Your task to perform on an android device: Open Maps and search for coffee Image 0: 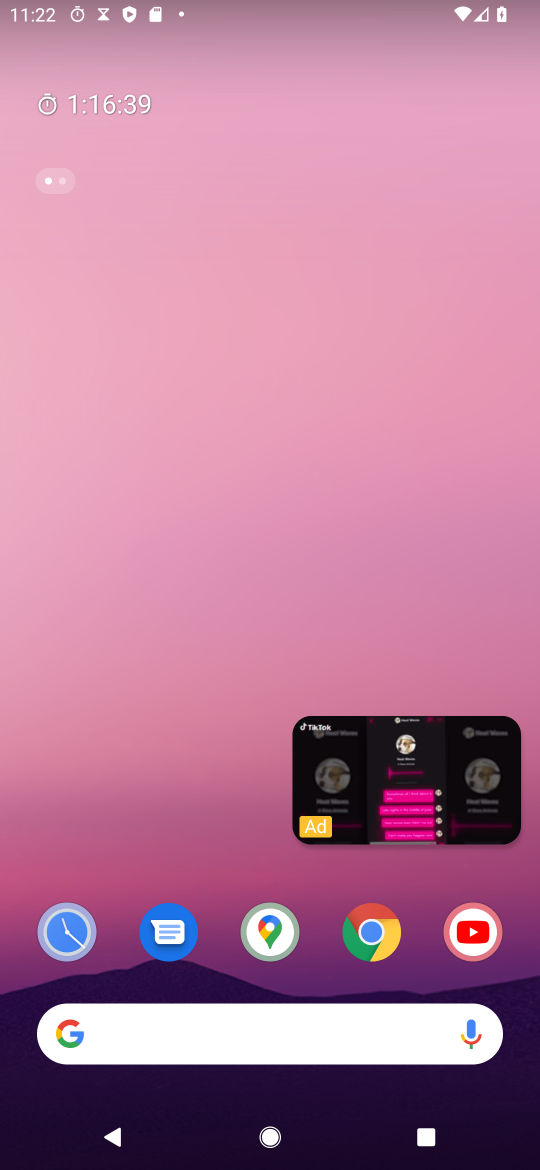
Step 0: click (489, 764)
Your task to perform on an android device: Open Maps and search for coffee Image 1: 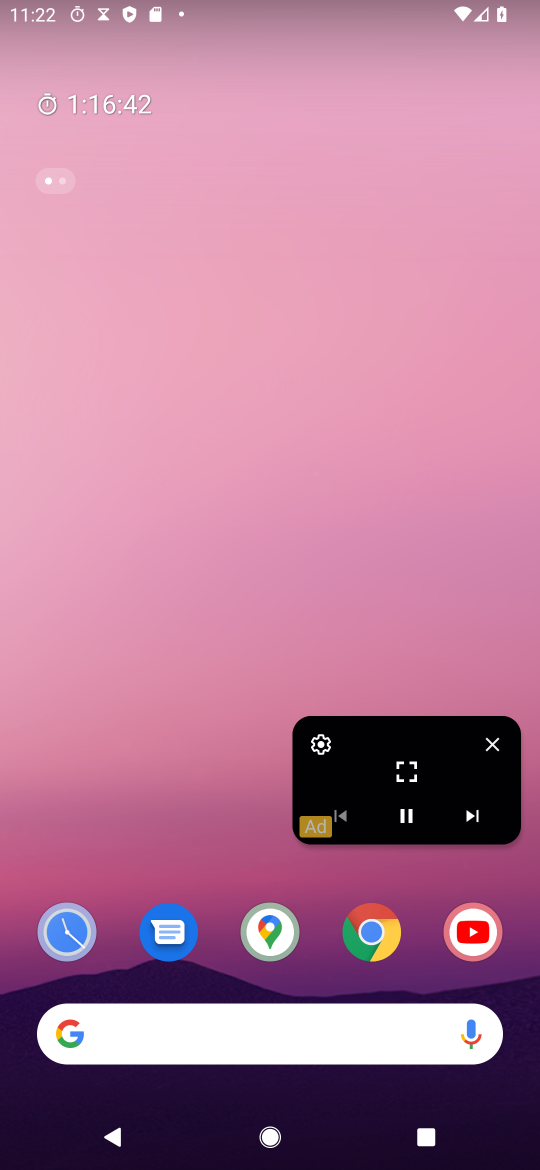
Step 1: click (490, 742)
Your task to perform on an android device: Open Maps and search for coffee Image 2: 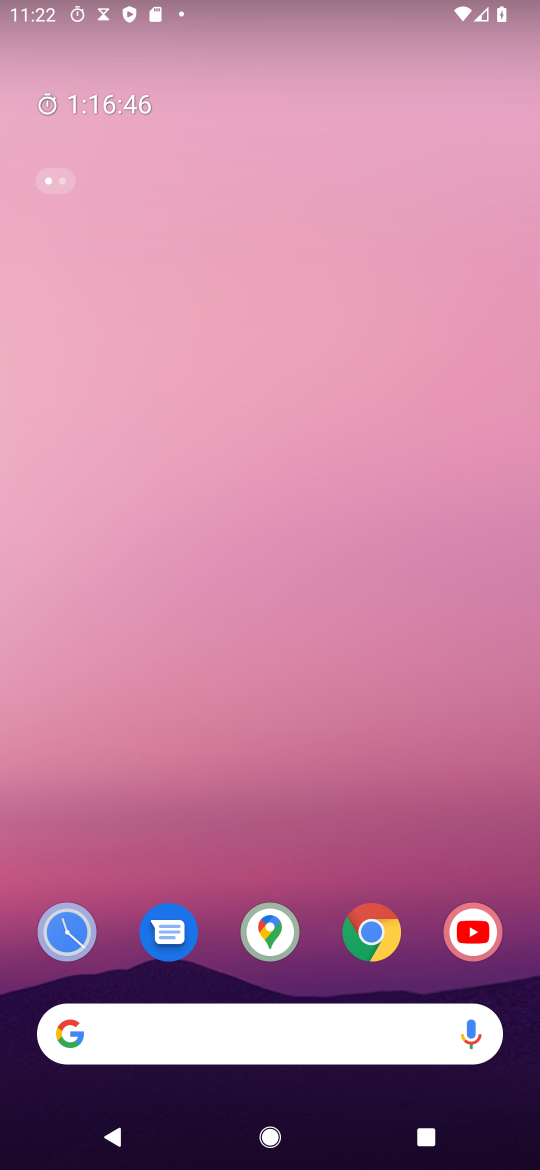
Step 2: click (272, 931)
Your task to perform on an android device: Open Maps and search for coffee Image 3: 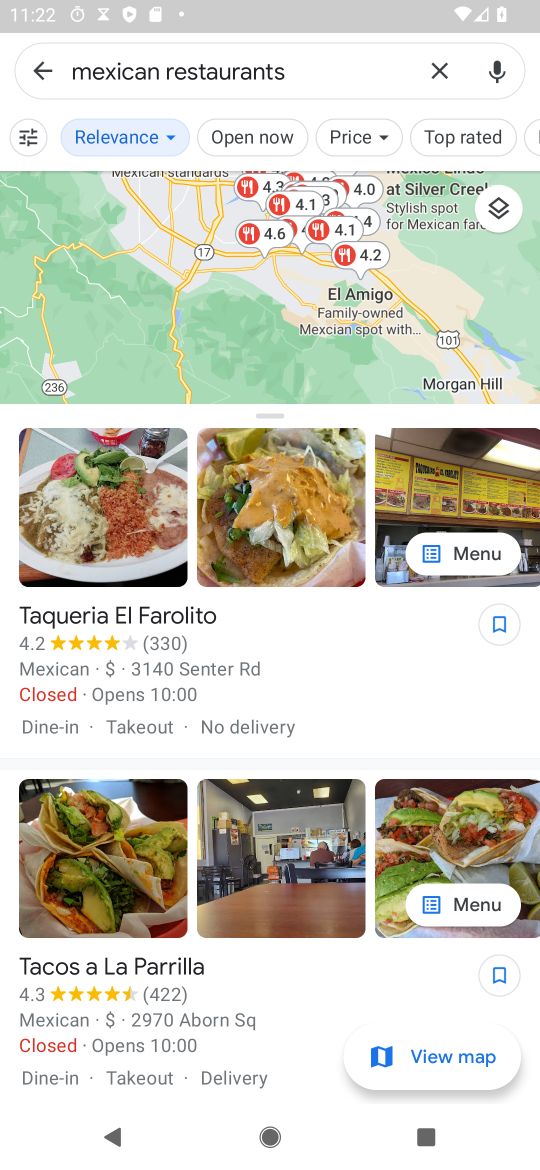
Step 3: click (436, 80)
Your task to perform on an android device: Open Maps and search for coffee Image 4: 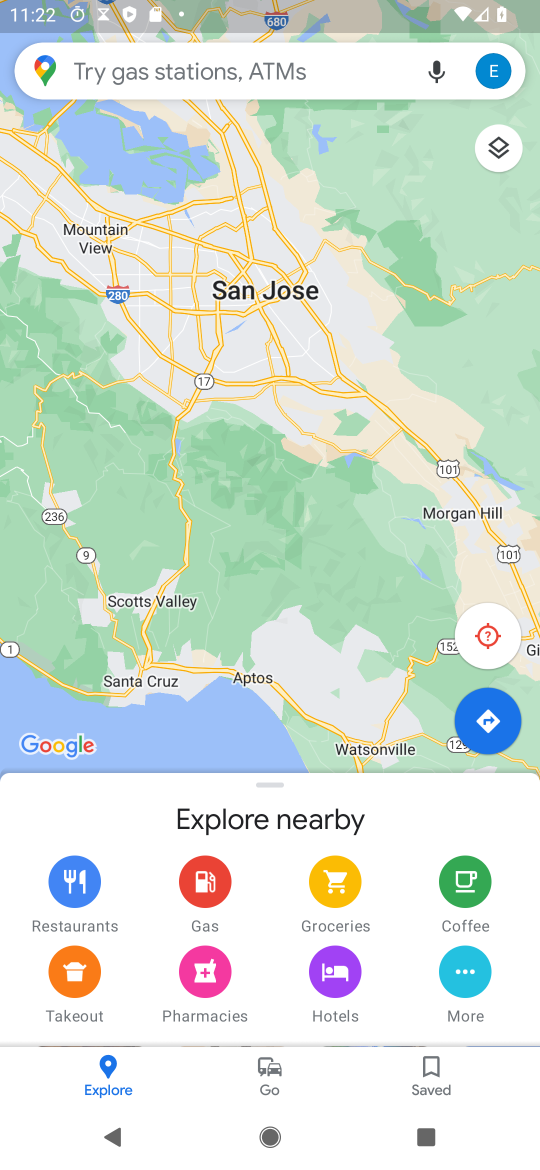
Step 4: click (305, 69)
Your task to perform on an android device: Open Maps and search for coffee Image 5: 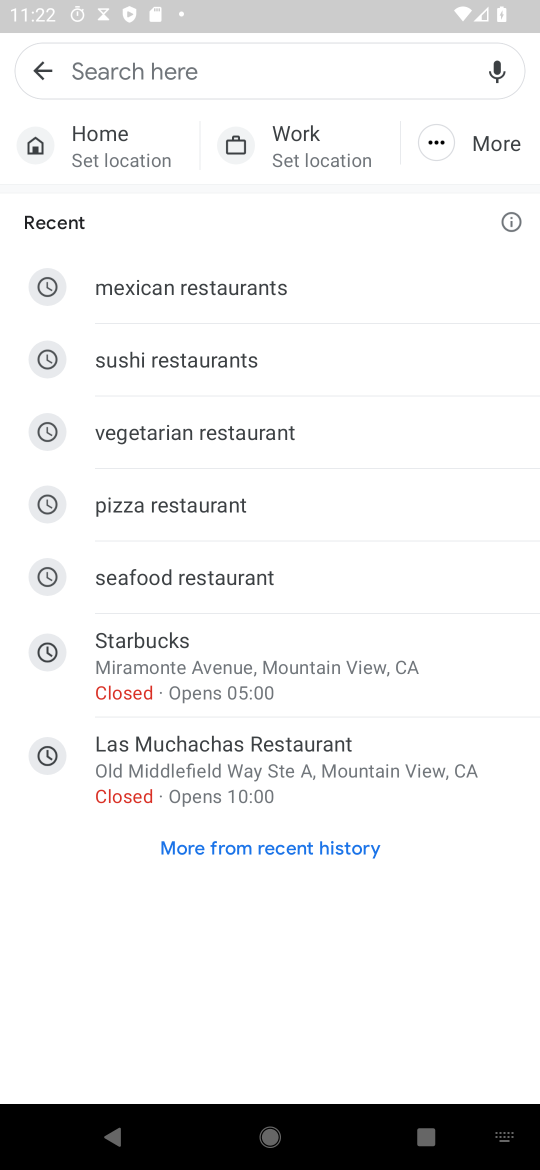
Step 5: type "coffee"
Your task to perform on an android device: Open Maps and search for coffee Image 6: 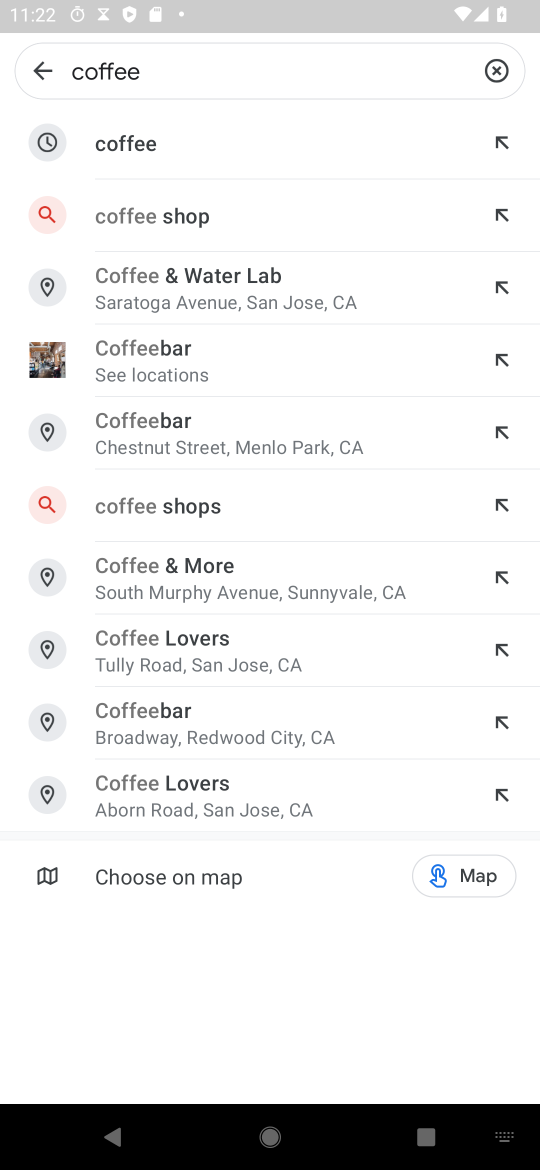
Step 6: click (123, 164)
Your task to perform on an android device: Open Maps and search for coffee Image 7: 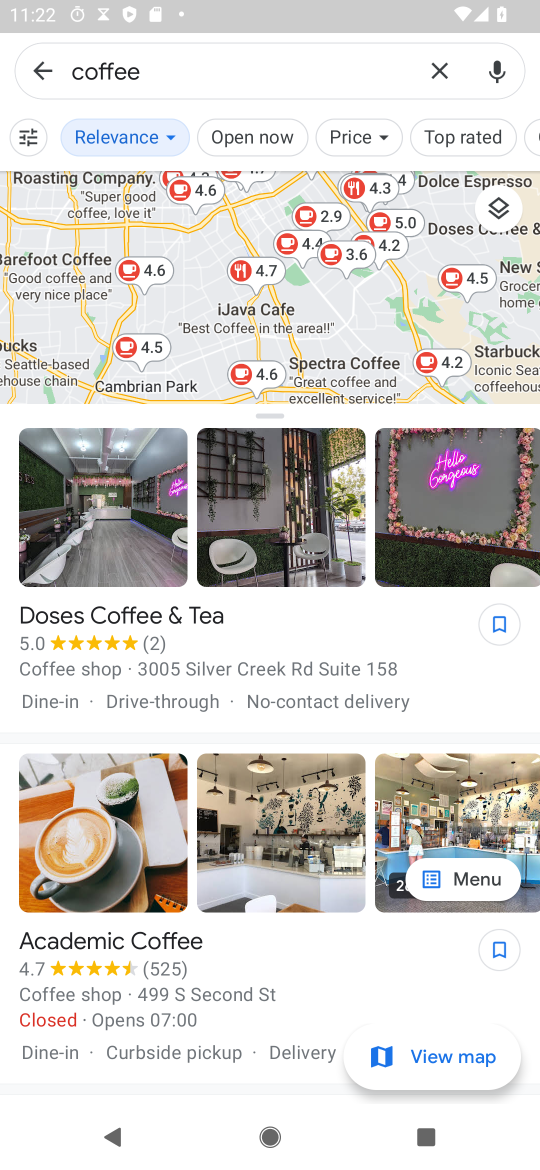
Step 7: task complete